Your task to perform on an android device: check android version Image 0: 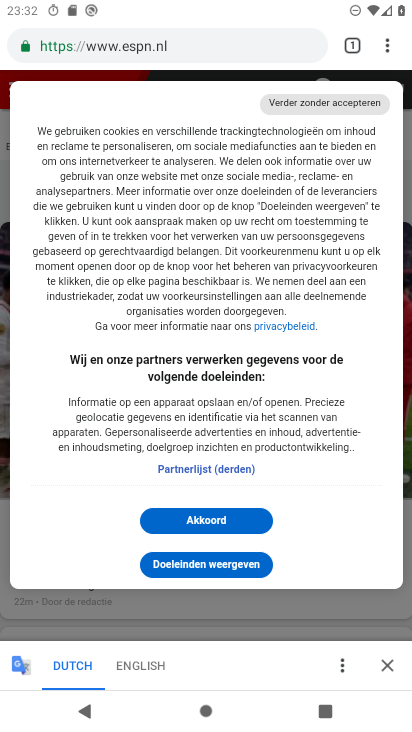
Step 0: press home button
Your task to perform on an android device: check android version Image 1: 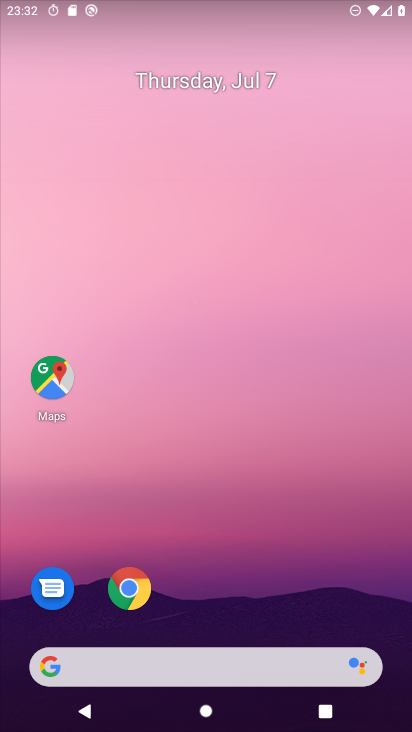
Step 1: drag from (265, 562) to (236, 98)
Your task to perform on an android device: check android version Image 2: 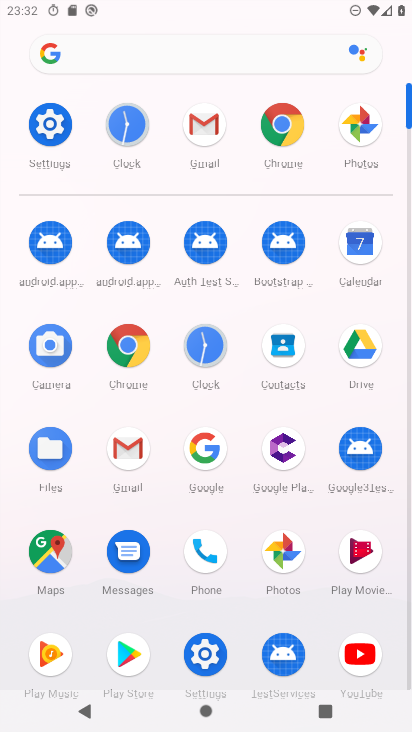
Step 2: click (48, 128)
Your task to perform on an android device: check android version Image 3: 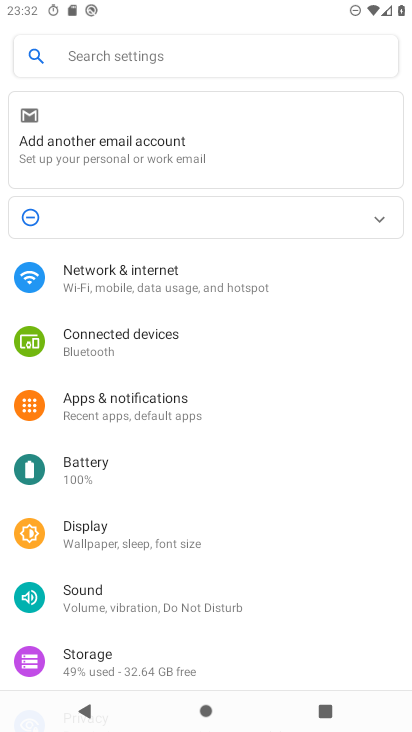
Step 3: drag from (210, 603) to (230, 150)
Your task to perform on an android device: check android version Image 4: 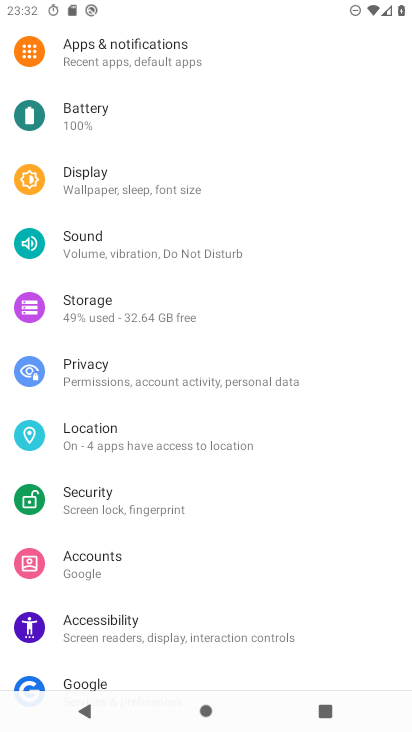
Step 4: drag from (224, 588) to (290, 124)
Your task to perform on an android device: check android version Image 5: 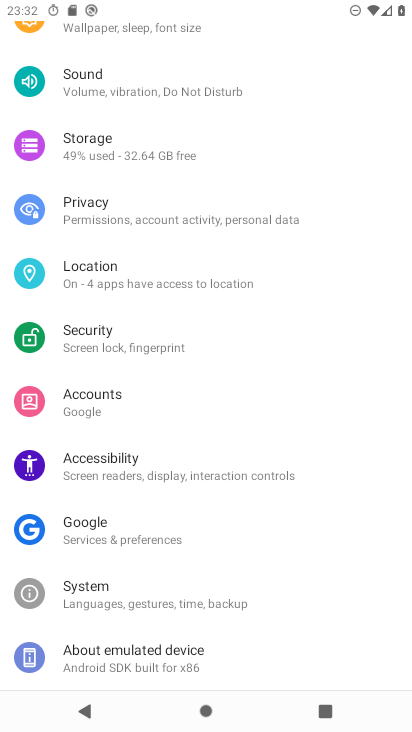
Step 5: click (170, 656)
Your task to perform on an android device: check android version Image 6: 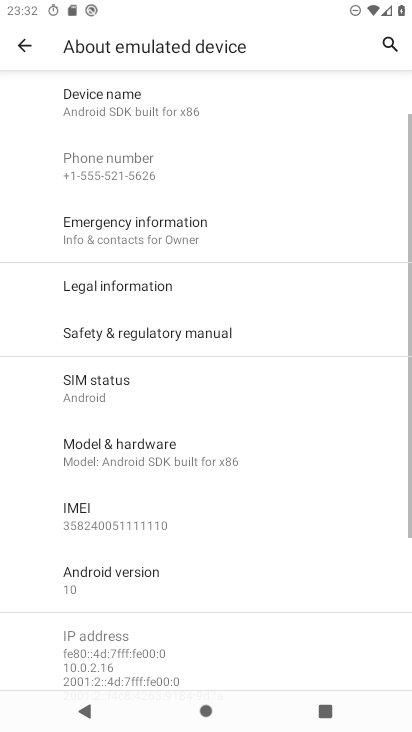
Step 6: click (166, 579)
Your task to perform on an android device: check android version Image 7: 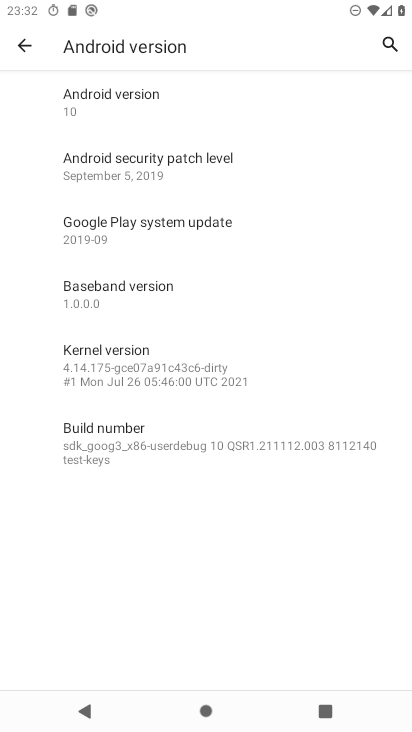
Step 7: task complete